Your task to perform on an android device: Go to eBay Image 0: 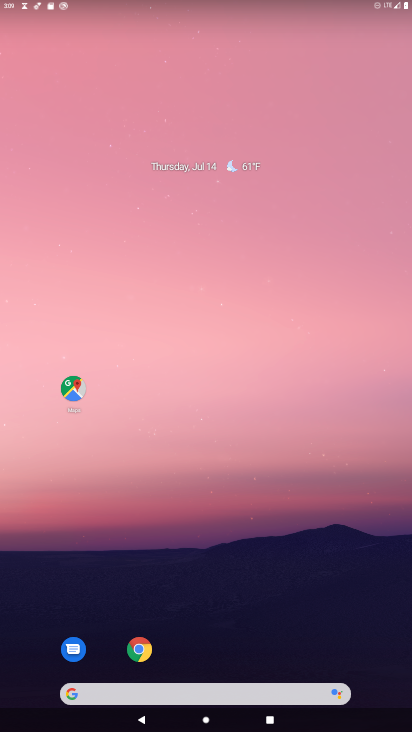
Step 0: drag from (237, 569) to (222, 54)
Your task to perform on an android device: Go to eBay Image 1: 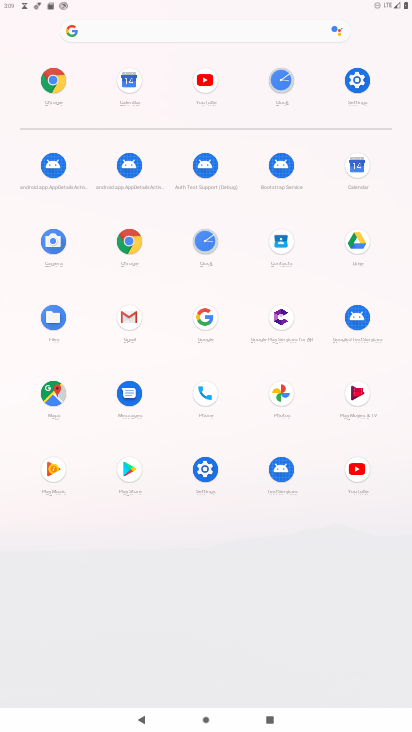
Step 1: click (135, 242)
Your task to perform on an android device: Go to eBay Image 2: 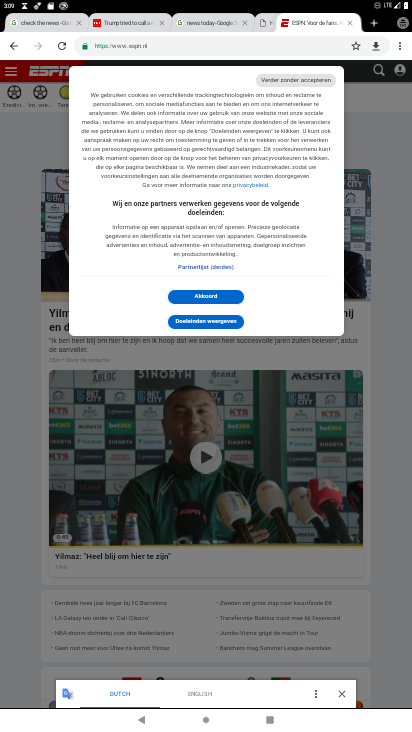
Step 2: click (255, 43)
Your task to perform on an android device: Go to eBay Image 3: 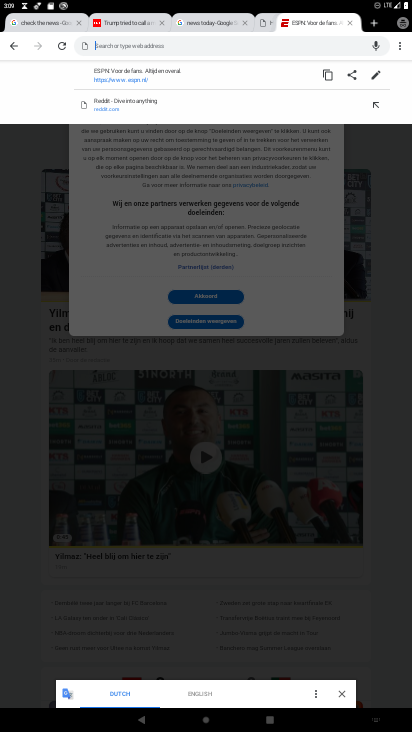
Step 3: type "ebay"
Your task to perform on an android device: Go to eBay Image 4: 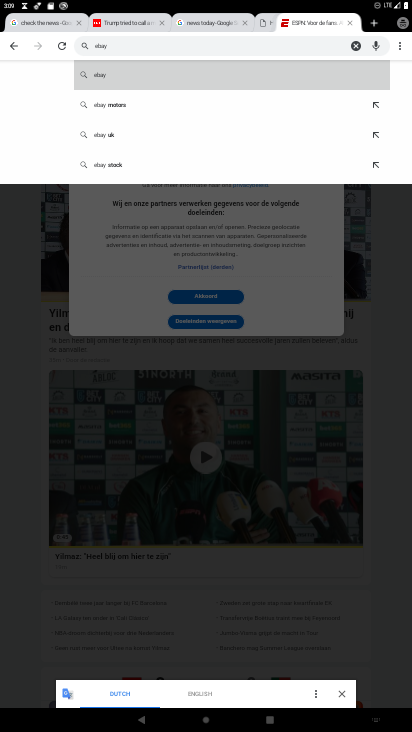
Step 4: click (198, 77)
Your task to perform on an android device: Go to eBay Image 5: 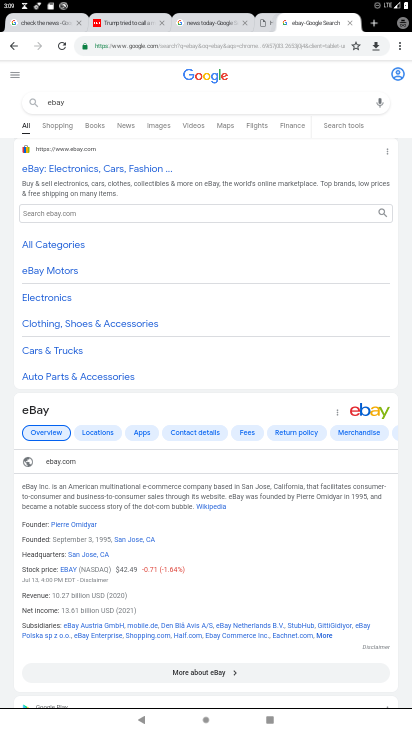
Step 5: task complete